Your task to perform on an android device: turn notification dots off Image 0: 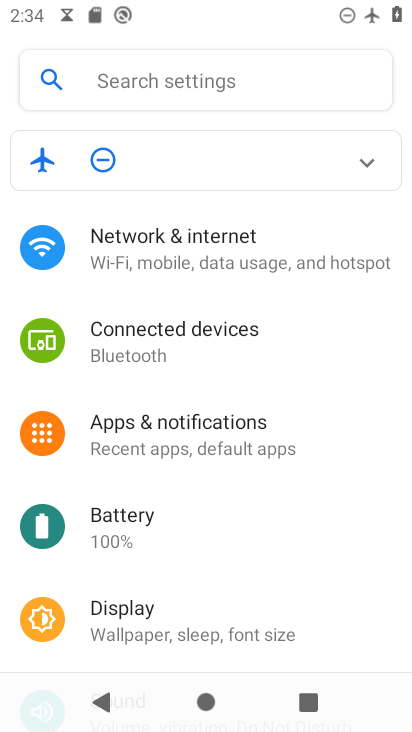
Step 0: click (164, 420)
Your task to perform on an android device: turn notification dots off Image 1: 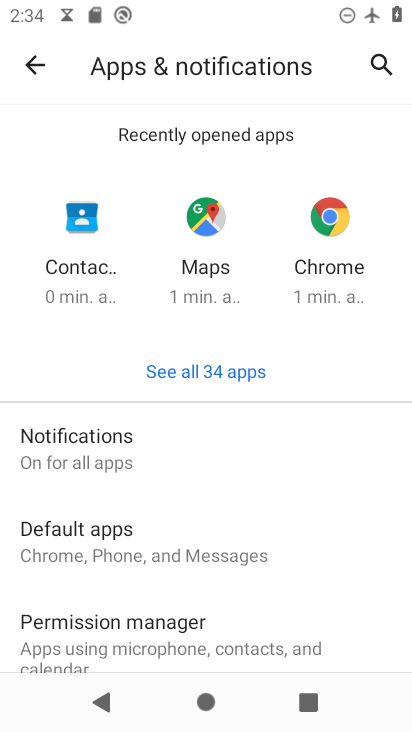
Step 1: click (98, 439)
Your task to perform on an android device: turn notification dots off Image 2: 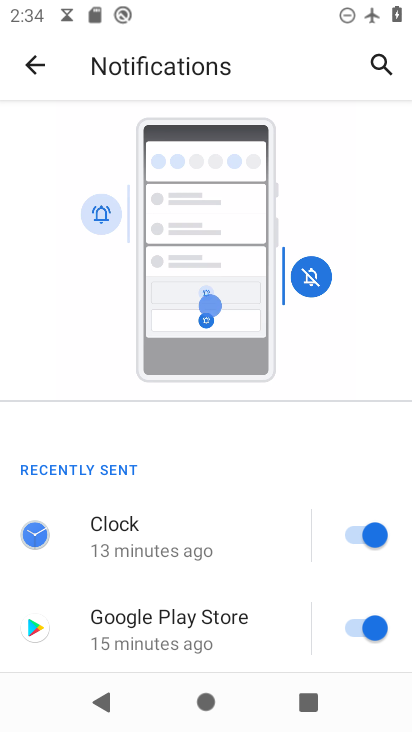
Step 2: drag from (209, 586) to (208, 455)
Your task to perform on an android device: turn notification dots off Image 3: 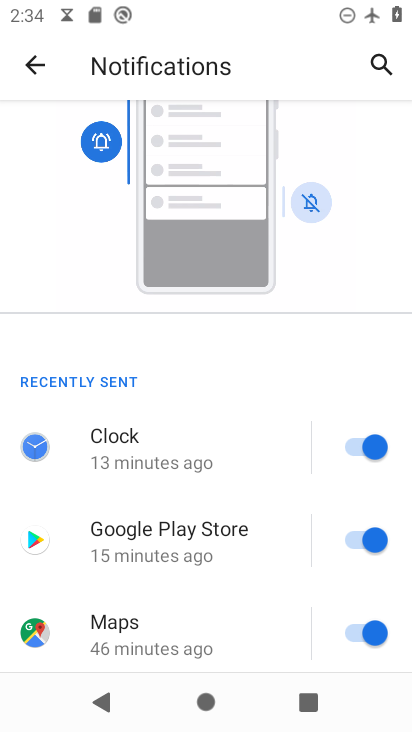
Step 3: drag from (211, 600) to (235, 454)
Your task to perform on an android device: turn notification dots off Image 4: 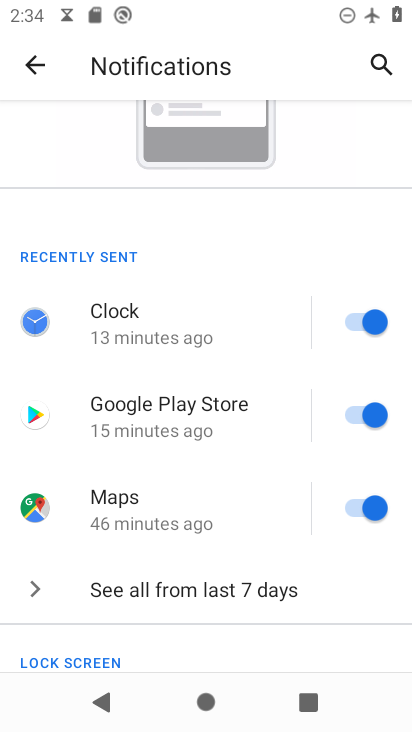
Step 4: drag from (188, 639) to (208, 485)
Your task to perform on an android device: turn notification dots off Image 5: 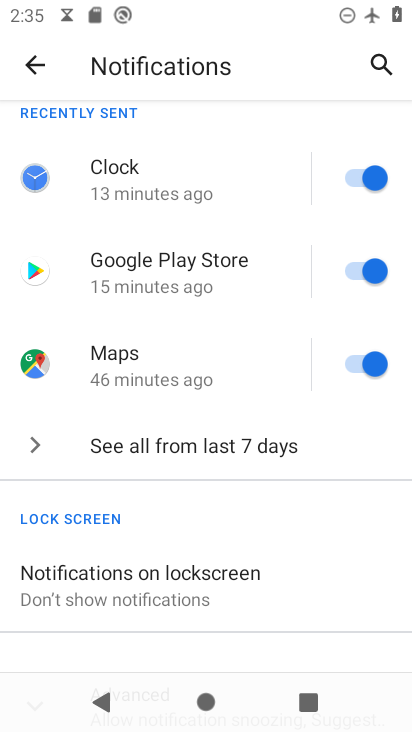
Step 5: drag from (220, 532) to (260, 430)
Your task to perform on an android device: turn notification dots off Image 6: 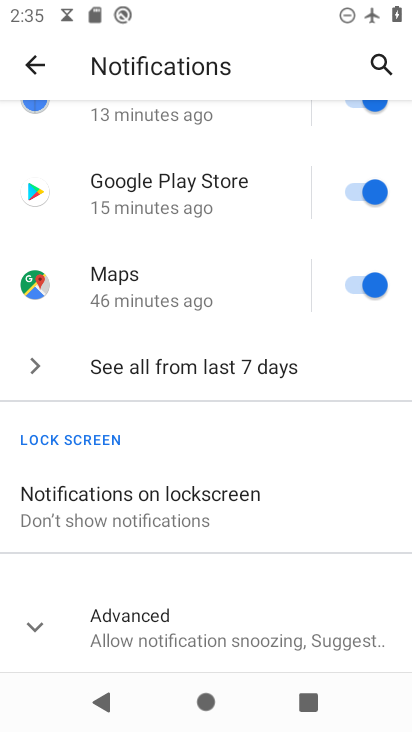
Step 6: drag from (222, 626) to (233, 516)
Your task to perform on an android device: turn notification dots off Image 7: 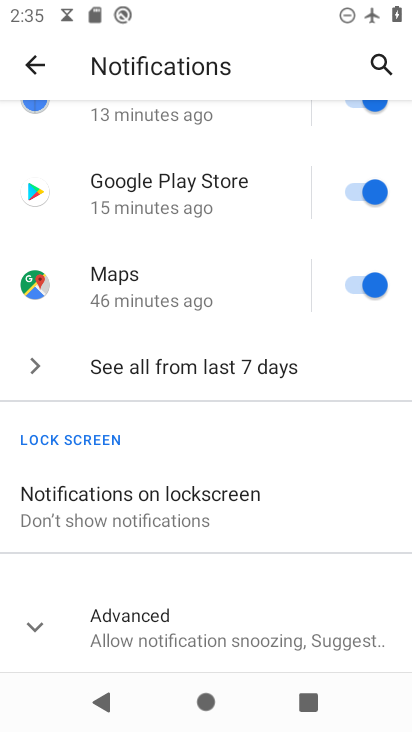
Step 7: click (258, 636)
Your task to perform on an android device: turn notification dots off Image 8: 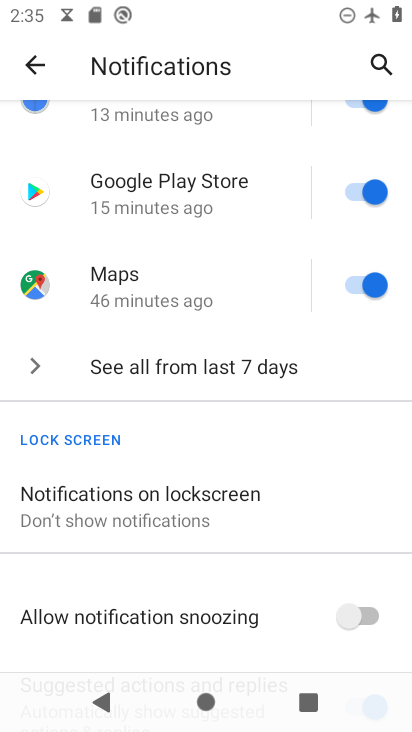
Step 8: drag from (172, 644) to (140, 460)
Your task to perform on an android device: turn notification dots off Image 9: 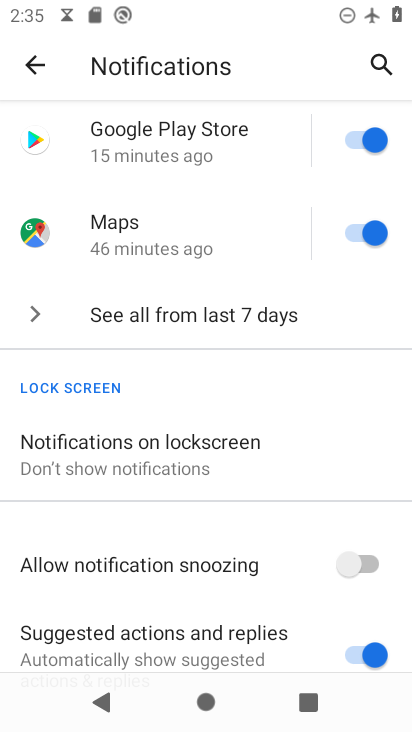
Step 9: drag from (139, 606) to (186, 481)
Your task to perform on an android device: turn notification dots off Image 10: 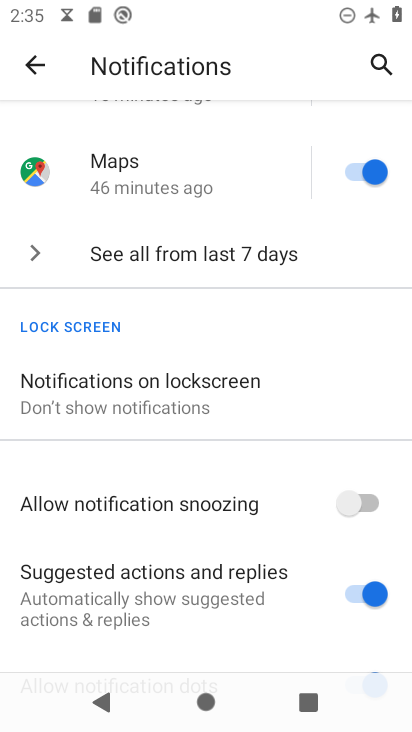
Step 10: drag from (179, 615) to (211, 420)
Your task to perform on an android device: turn notification dots off Image 11: 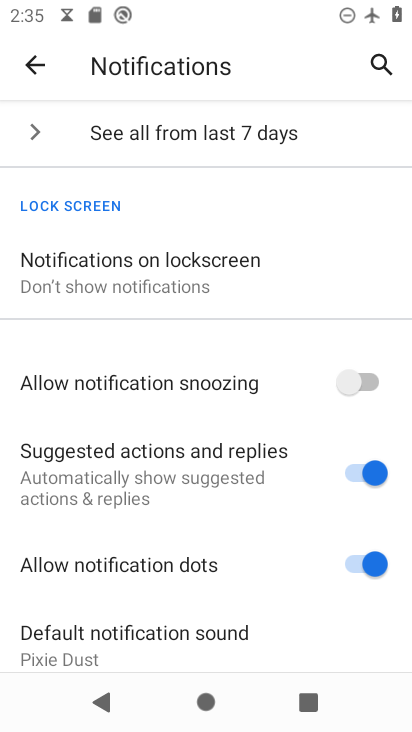
Step 11: click (363, 565)
Your task to perform on an android device: turn notification dots off Image 12: 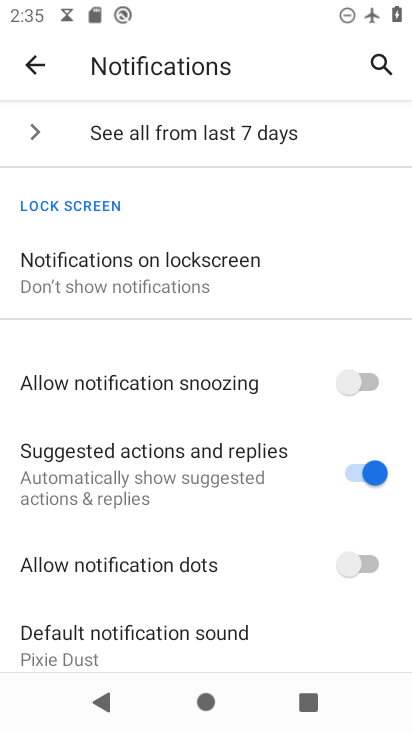
Step 12: task complete